Your task to perform on an android device: turn on showing notifications on the lock screen Image 0: 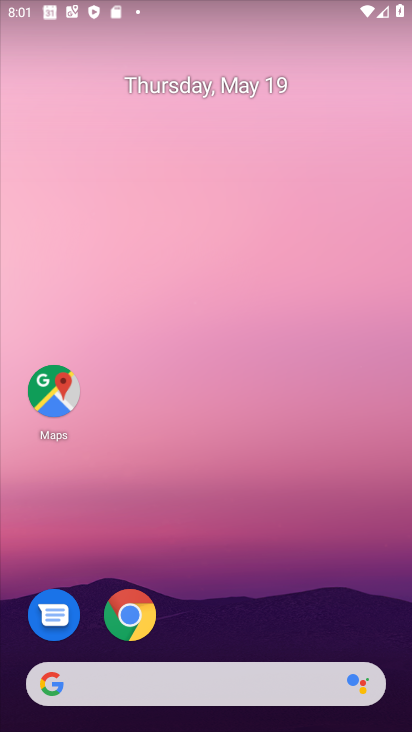
Step 0: drag from (205, 599) to (249, 138)
Your task to perform on an android device: turn on showing notifications on the lock screen Image 1: 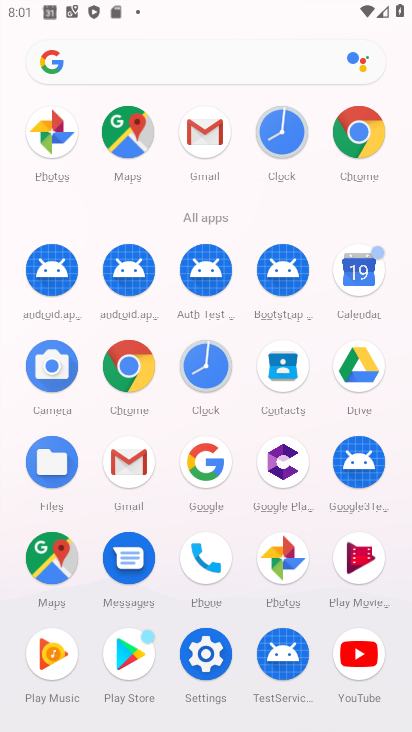
Step 1: click (209, 641)
Your task to perform on an android device: turn on showing notifications on the lock screen Image 2: 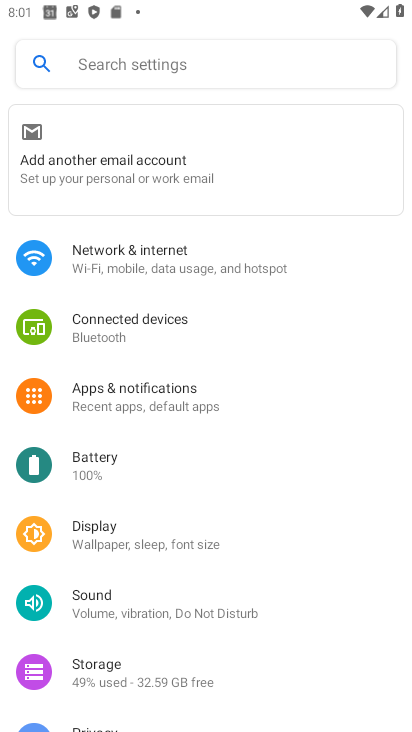
Step 2: click (136, 380)
Your task to perform on an android device: turn on showing notifications on the lock screen Image 3: 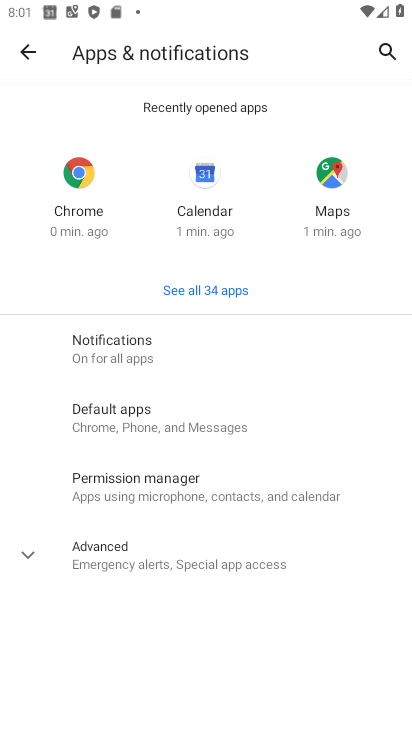
Step 3: click (130, 350)
Your task to perform on an android device: turn on showing notifications on the lock screen Image 4: 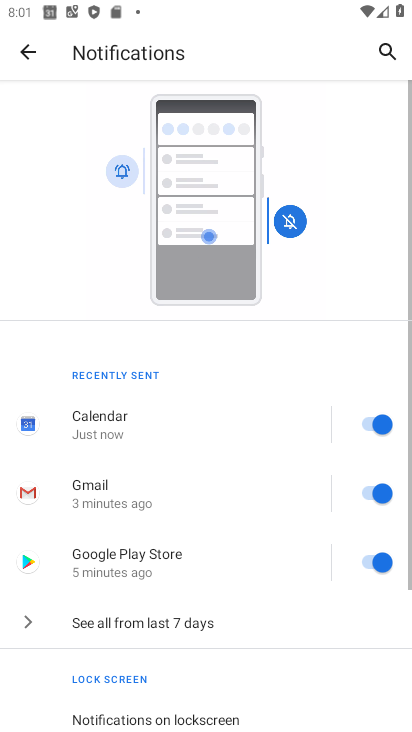
Step 4: drag from (263, 630) to (252, 334)
Your task to perform on an android device: turn on showing notifications on the lock screen Image 5: 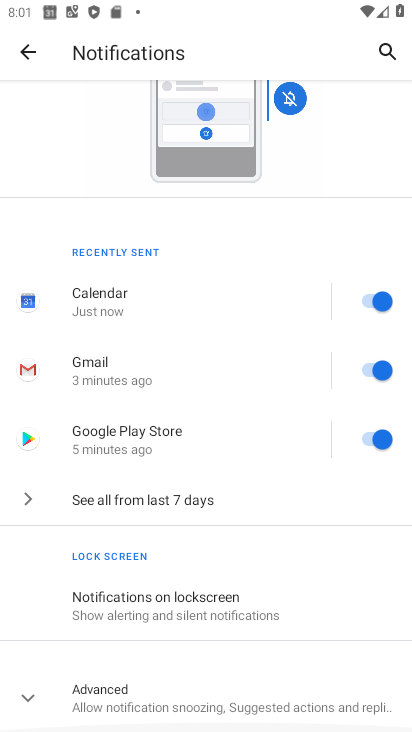
Step 5: click (162, 618)
Your task to perform on an android device: turn on showing notifications on the lock screen Image 6: 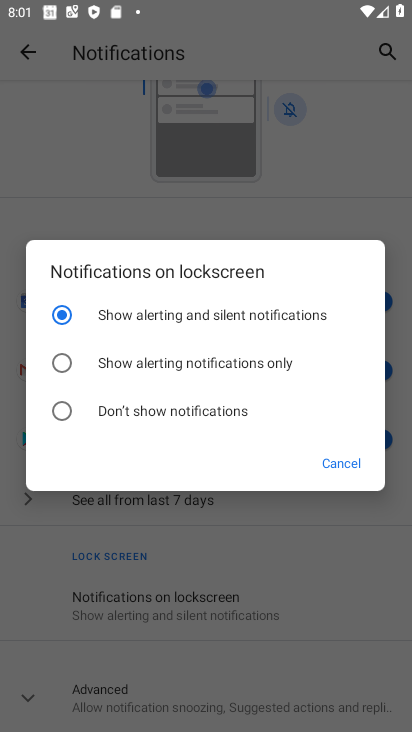
Step 6: task complete